Your task to perform on an android device: turn on the 12-hour format for clock Image 0: 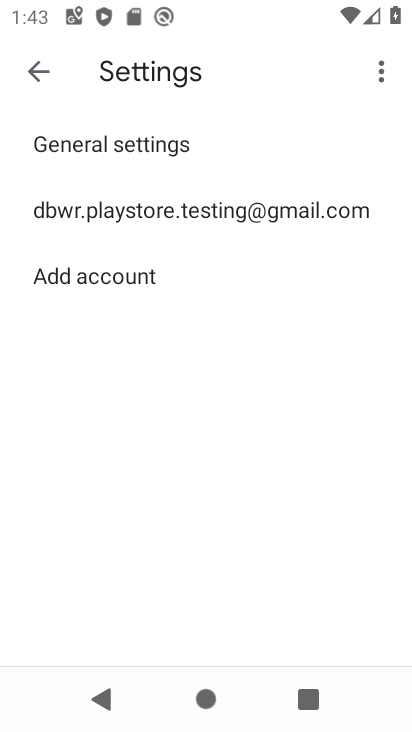
Step 0: press home button
Your task to perform on an android device: turn on the 12-hour format for clock Image 1: 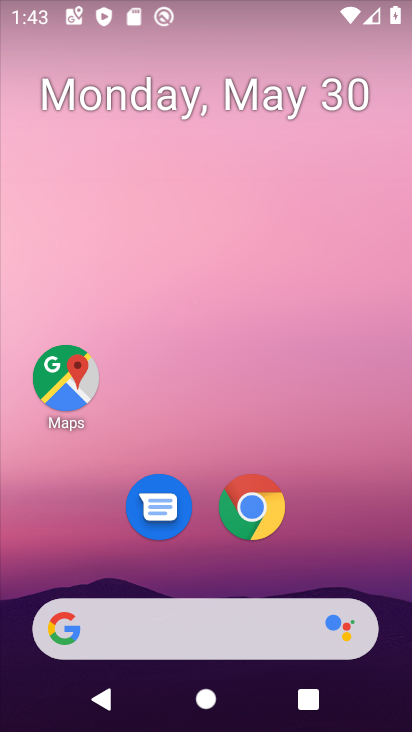
Step 1: drag from (145, 267) to (130, 116)
Your task to perform on an android device: turn on the 12-hour format for clock Image 2: 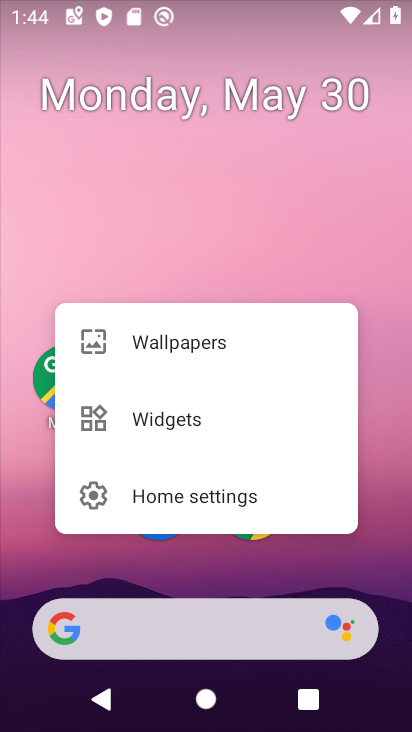
Step 2: click (200, 594)
Your task to perform on an android device: turn on the 12-hour format for clock Image 3: 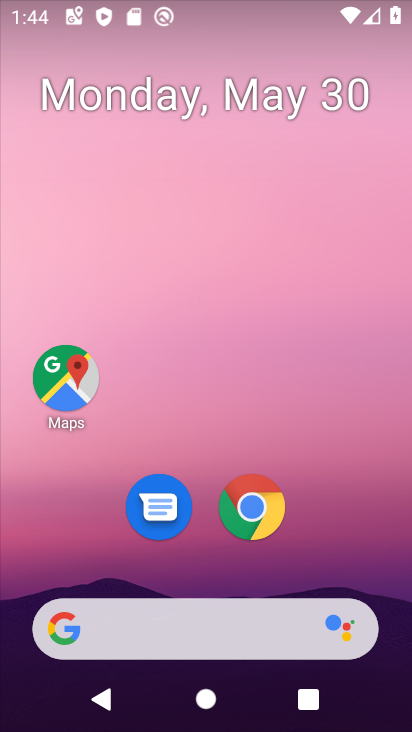
Step 3: drag from (199, 581) to (197, 175)
Your task to perform on an android device: turn on the 12-hour format for clock Image 4: 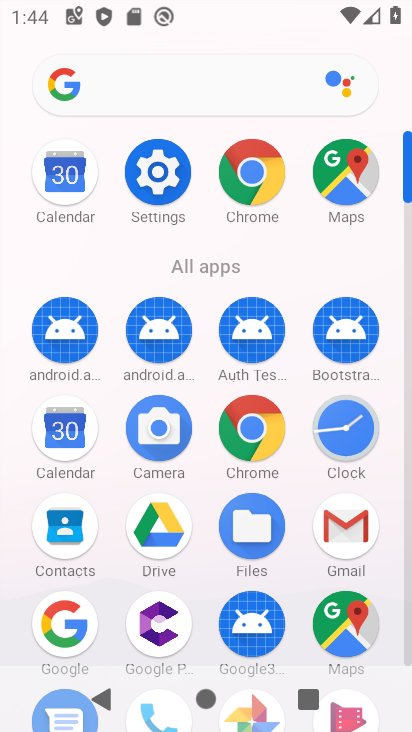
Step 4: click (194, 208)
Your task to perform on an android device: turn on the 12-hour format for clock Image 5: 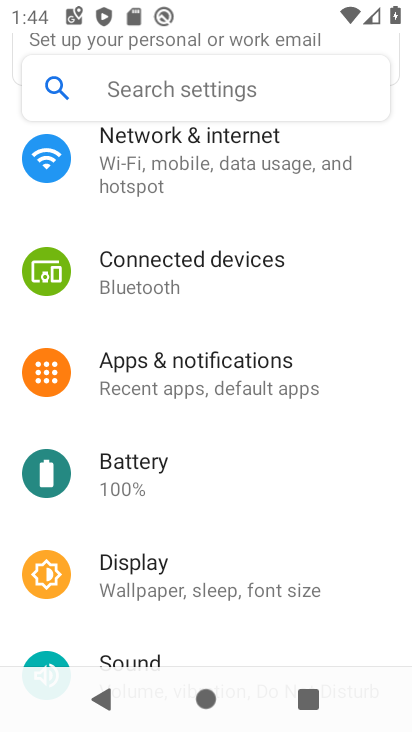
Step 5: press home button
Your task to perform on an android device: turn on the 12-hour format for clock Image 6: 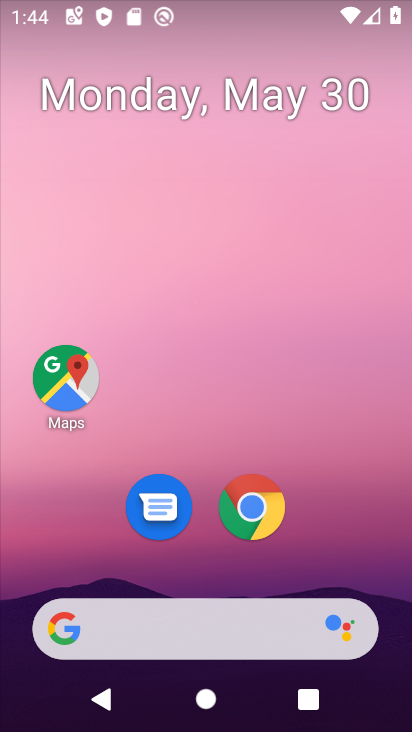
Step 6: drag from (240, 561) to (194, 5)
Your task to perform on an android device: turn on the 12-hour format for clock Image 7: 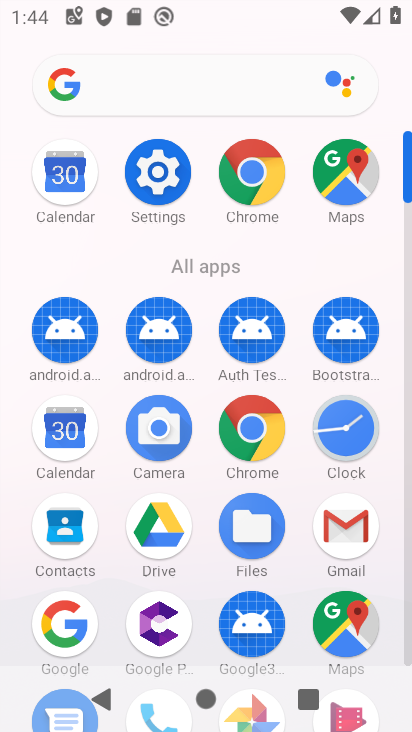
Step 7: click (157, 185)
Your task to perform on an android device: turn on the 12-hour format for clock Image 8: 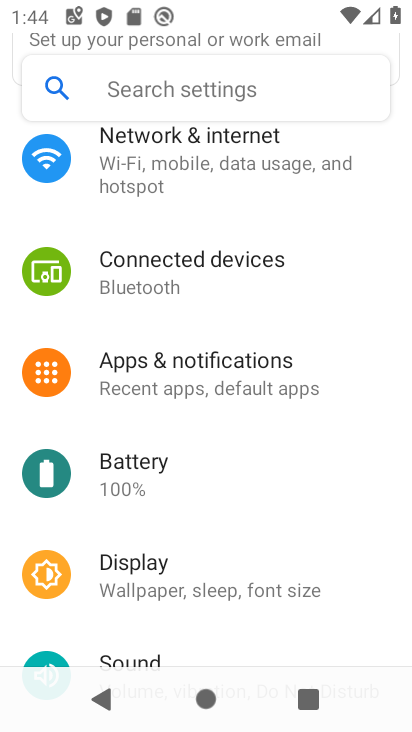
Step 8: press back button
Your task to perform on an android device: turn on the 12-hour format for clock Image 9: 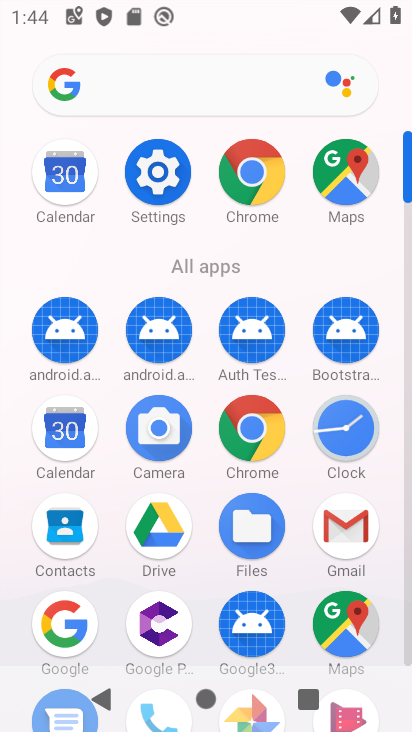
Step 9: click (81, 441)
Your task to perform on an android device: turn on the 12-hour format for clock Image 10: 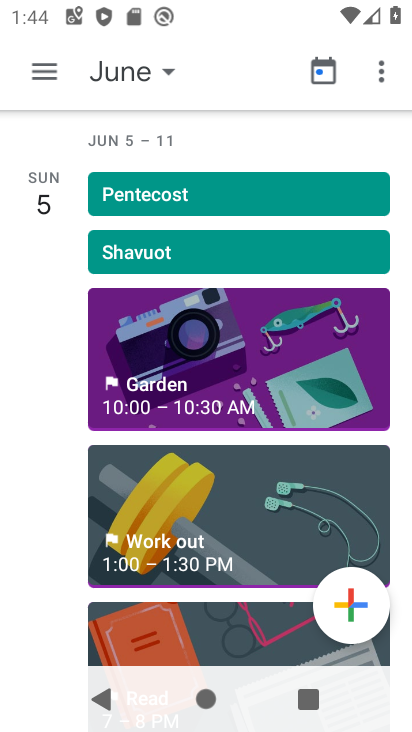
Step 10: press back button
Your task to perform on an android device: turn on the 12-hour format for clock Image 11: 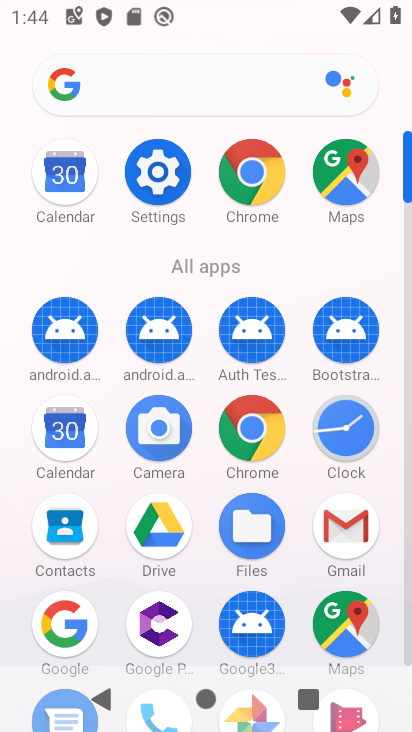
Step 11: click (361, 454)
Your task to perform on an android device: turn on the 12-hour format for clock Image 12: 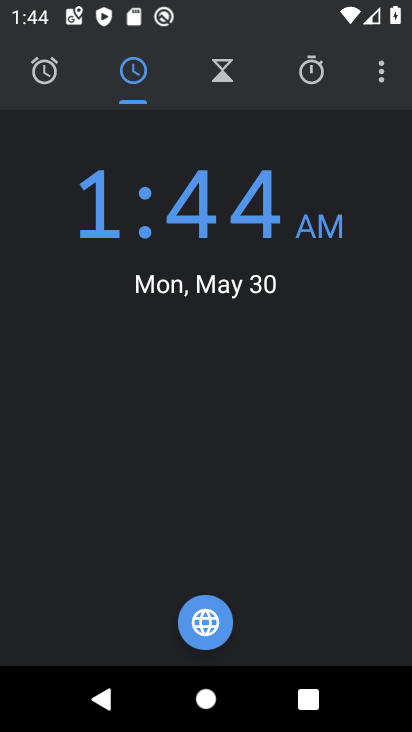
Step 12: click (380, 64)
Your task to perform on an android device: turn on the 12-hour format for clock Image 13: 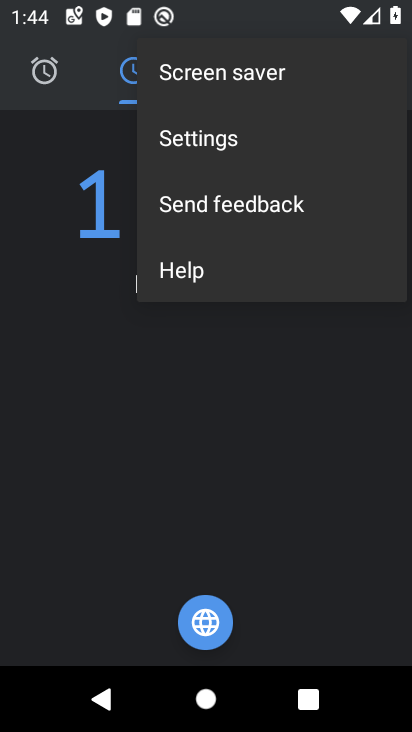
Step 13: click (268, 140)
Your task to perform on an android device: turn on the 12-hour format for clock Image 14: 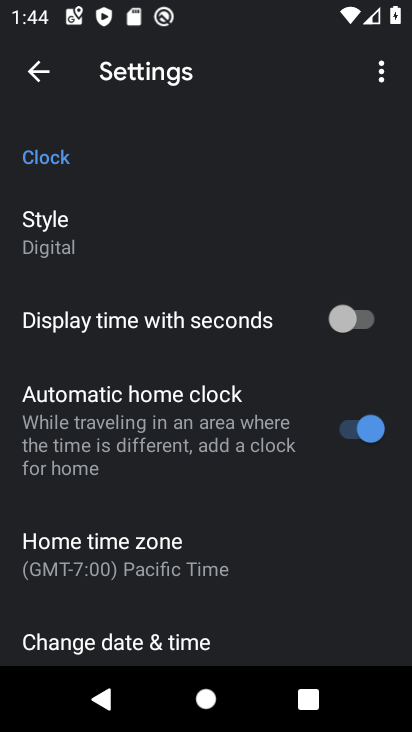
Step 14: click (114, 648)
Your task to perform on an android device: turn on the 12-hour format for clock Image 15: 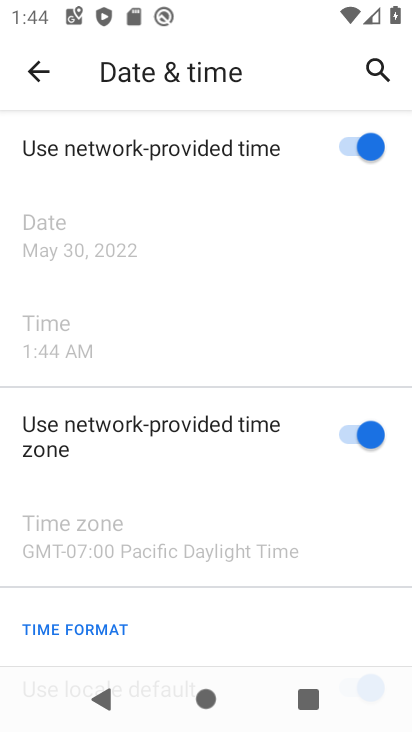
Step 15: task complete